Your task to perform on an android device: change the upload size in google photos Image 0: 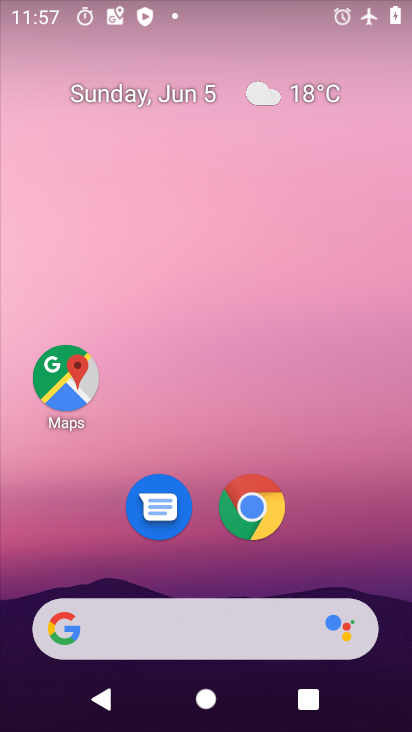
Step 0: drag from (242, 726) to (242, 31)
Your task to perform on an android device: change the upload size in google photos Image 1: 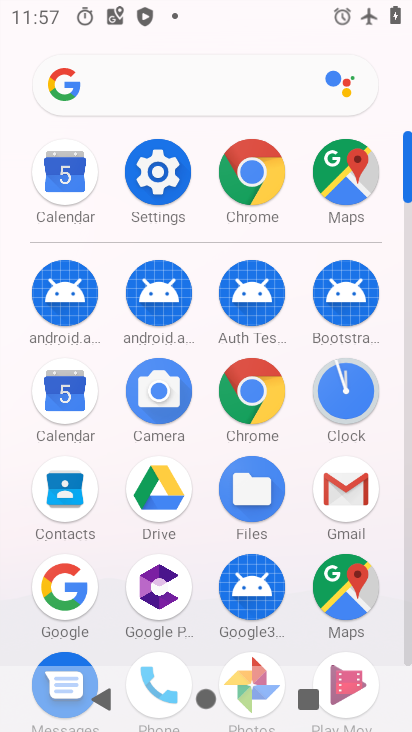
Step 1: click (251, 663)
Your task to perform on an android device: change the upload size in google photos Image 2: 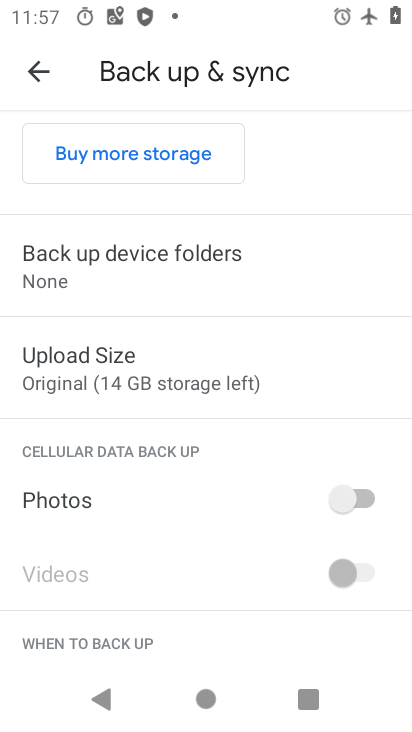
Step 2: click (106, 363)
Your task to perform on an android device: change the upload size in google photos Image 3: 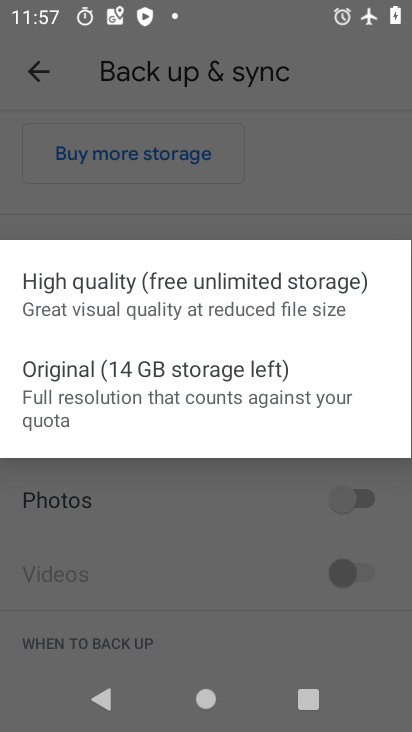
Step 3: click (100, 379)
Your task to perform on an android device: change the upload size in google photos Image 4: 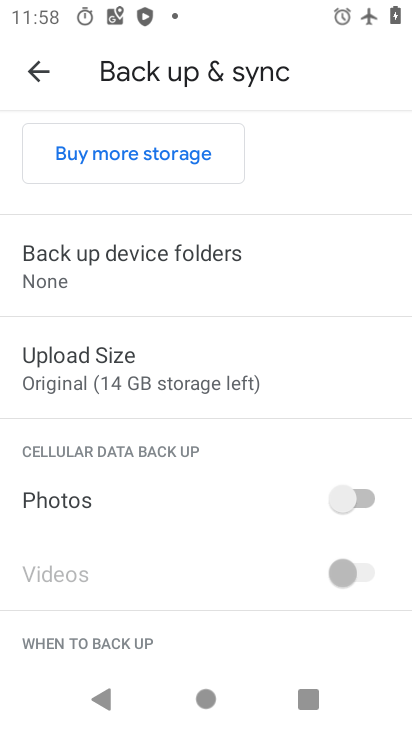
Step 4: task complete